Your task to perform on an android device: turn on wifi Image 0: 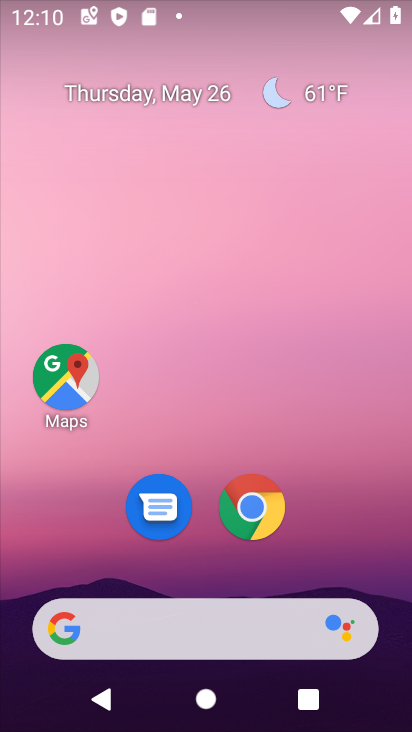
Step 0: drag from (366, 545) to (324, 262)
Your task to perform on an android device: turn on wifi Image 1: 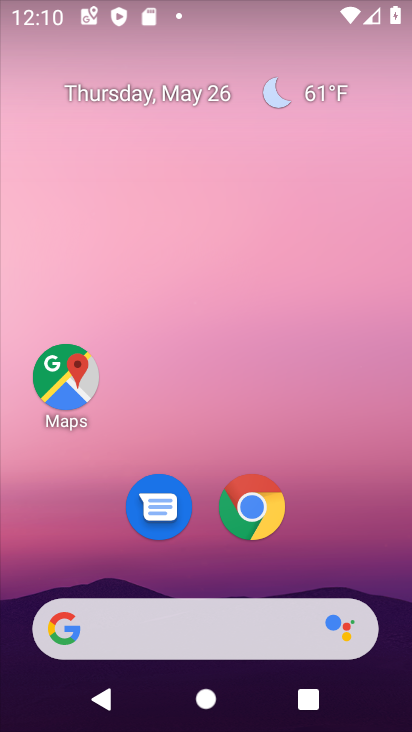
Step 1: drag from (351, 545) to (283, 9)
Your task to perform on an android device: turn on wifi Image 2: 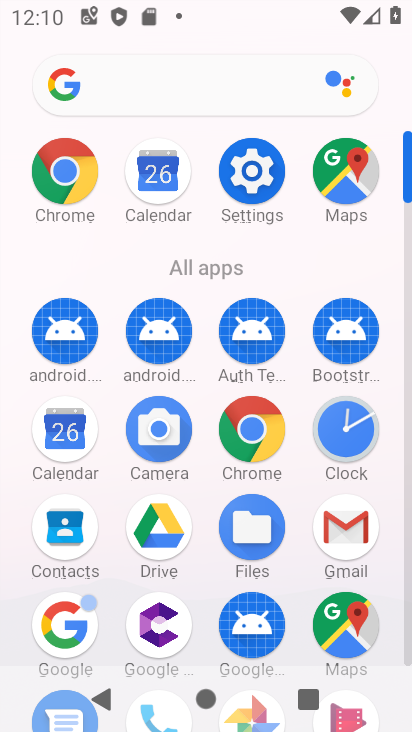
Step 2: click (245, 195)
Your task to perform on an android device: turn on wifi Image 3: 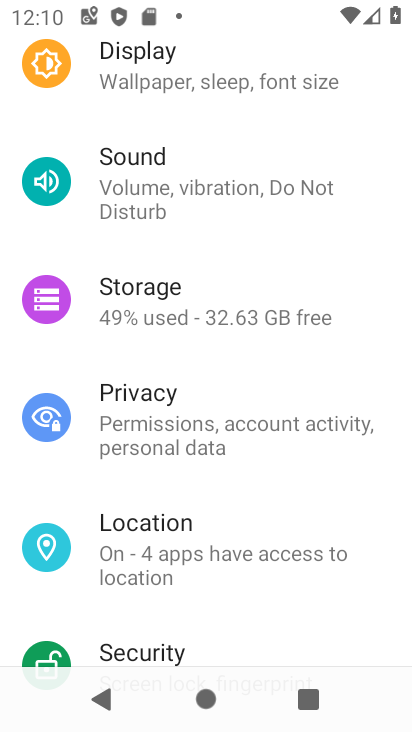
Step 3: drag from (178, 126) to (233, 670)
Your task to perform on an android device: turn on wifi Image 4: 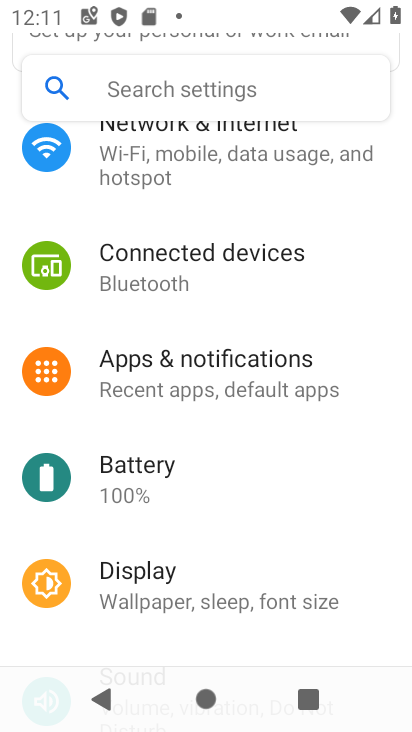
Step 4: click (207, 141)
Your task to perform on an android device: turn on wifi Image 5: 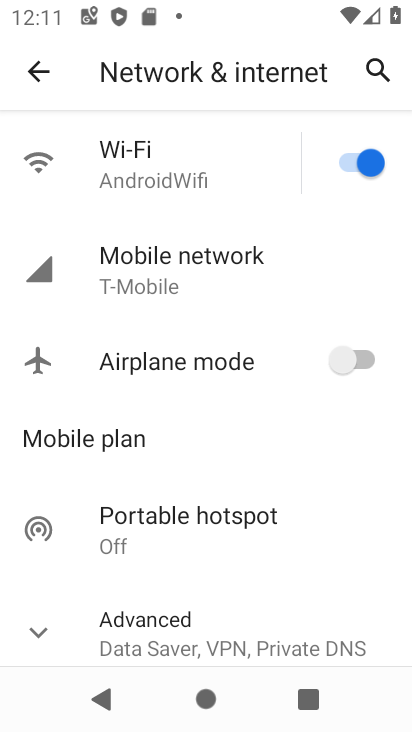
Step 5: task complete